Your task to perform on an android device: choose inbox layout in the gmail app Image 0: 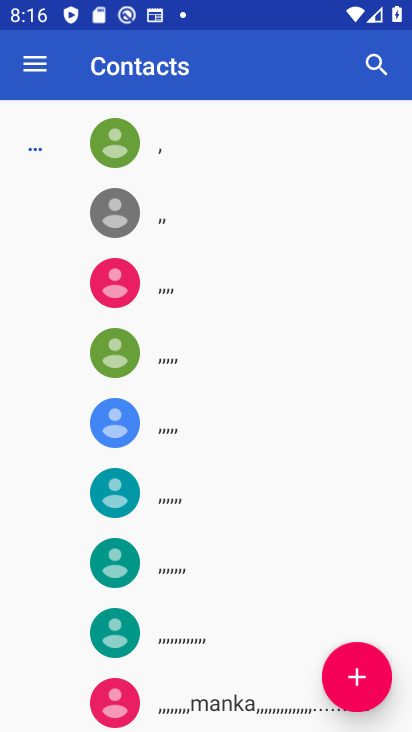
Step 0: press home button
Your task to perform on an android device: choose inbox layout in the gmail app Image 1: 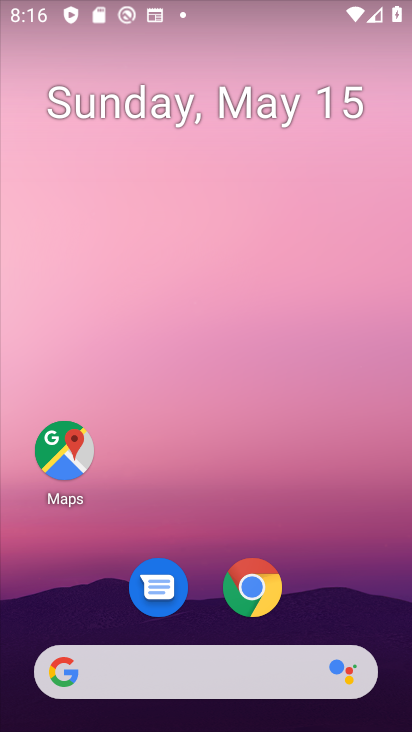
Step 1: drag from (212, 497) to (212, 304)
Your task to perform on an android device: choose inbox layout in the gmail app Image 2: 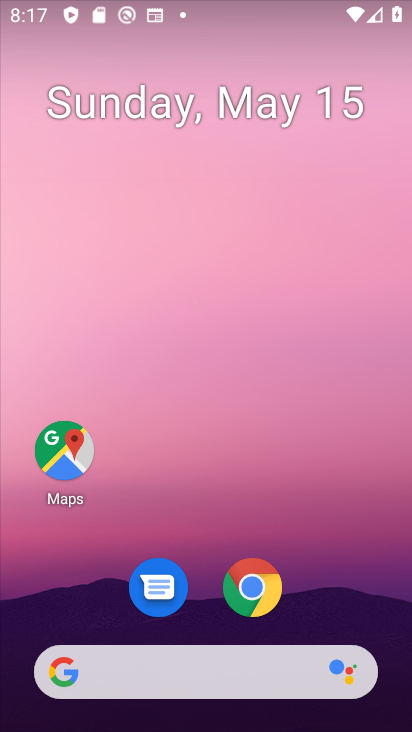
Step 2: drag from (217, 621) to (250, 213)
Your task to perform on an android device: choose inbox layout in the gmail app Image 3: 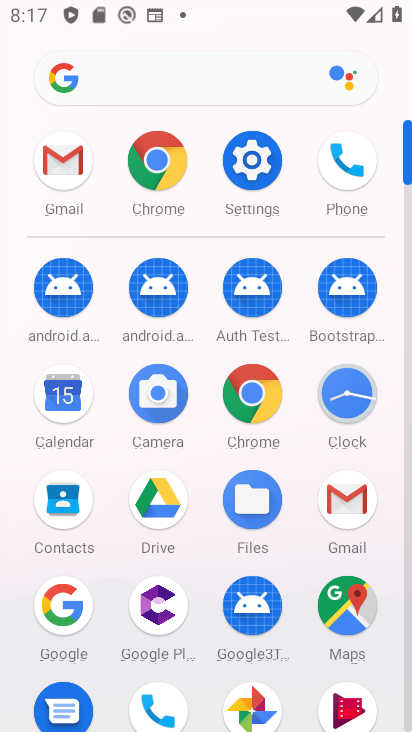
Step 3: click (341, 512)
Your task to perform on an android device: choose inbox layout in the gmail app Image 4: 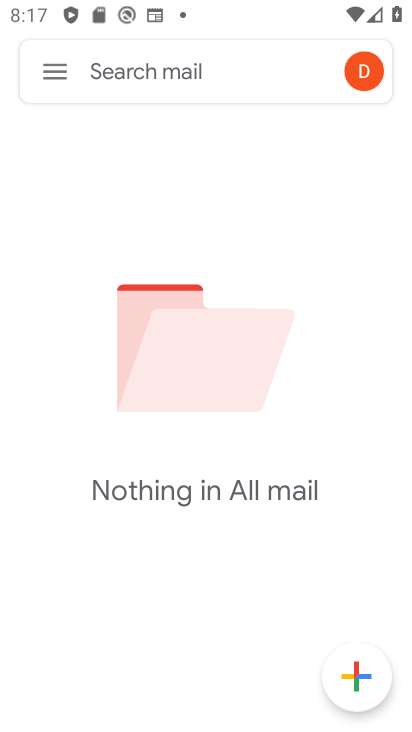
Step 4: click (45, 68)
Your task to perform on an android device: choose inbox layout in the gmail app Image 5: 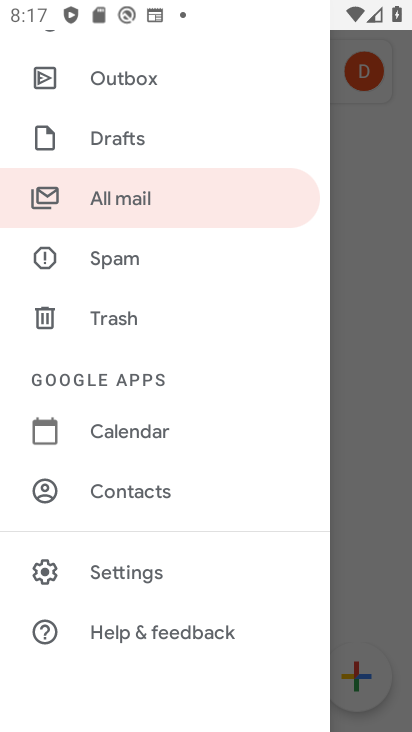
Step 5: click (143, 575)
Your task to perform on an android device: choose inbox layout in the gmail app Image 6: 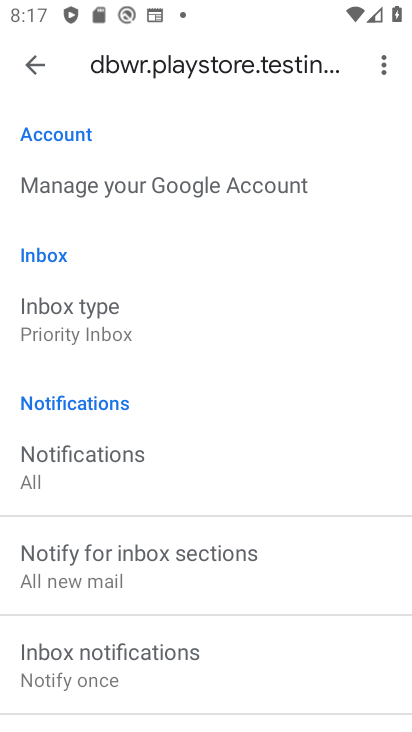
Step 6: click (78, 331)
Your task to perform on an android device: choose inbox layout in the gmail app Image 7: 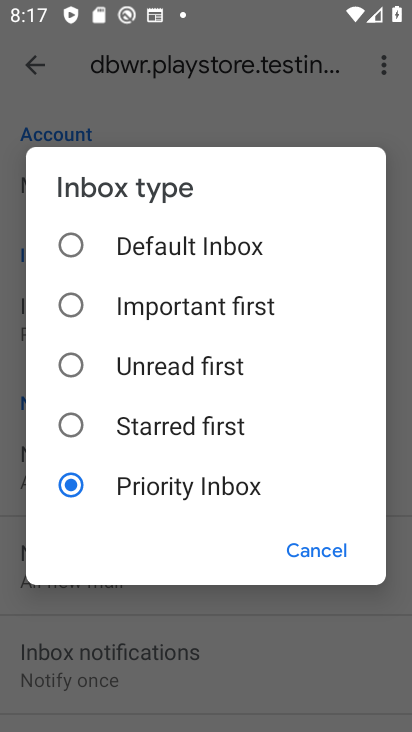
Step 7: click (81, 252)
Your task to perform on an android device: choose inbox layout in the gmail app Image 8: 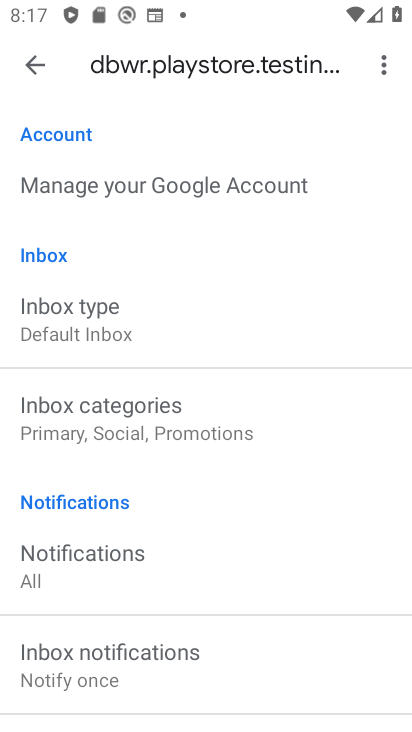
Step 8: task complete